Your task to perform on an android device: toggle sleep mode Image 0: 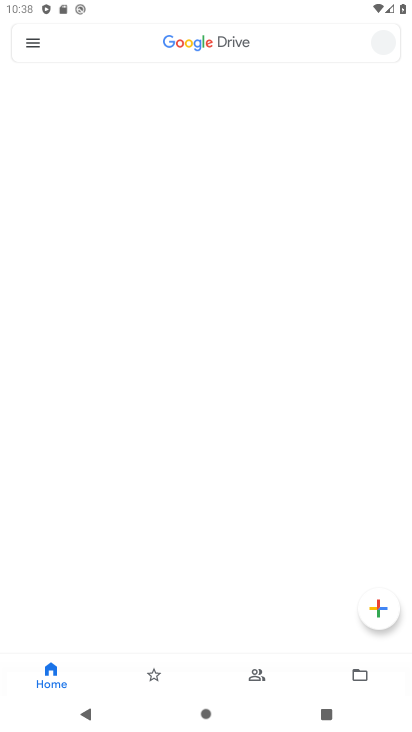
Step 0: task complete